Your task to perform on an android device: delete browsing data in the chrome app Image 0: 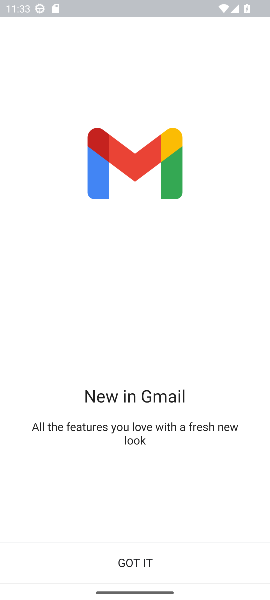
Step 0: press home button
Your task to perform on an android device: delete browsing data in the chrome app Image 1: 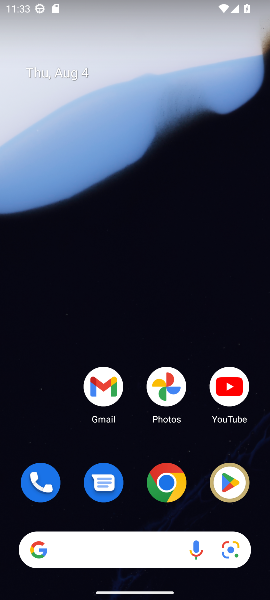
Step 1: click (170, 468)
Your task to perform on an android device: delete browsing data in the chrome app Image 2: 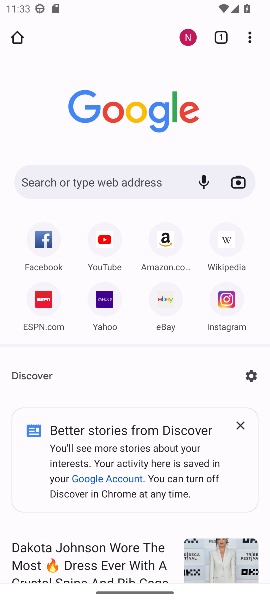
Step 2: click (252, 46)
Your task to perform on an android device: delete browsing data in the chrome app Image 3: 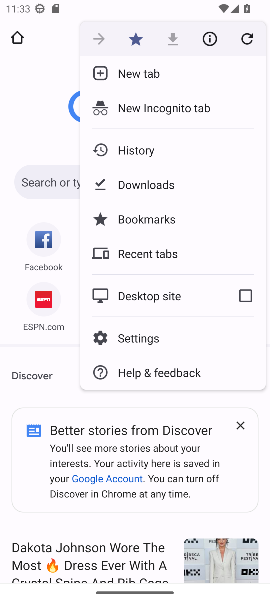
Step 3: click (137, 158)
Your task to perform on an android device: delete browsing data in the chrome app Image 4: 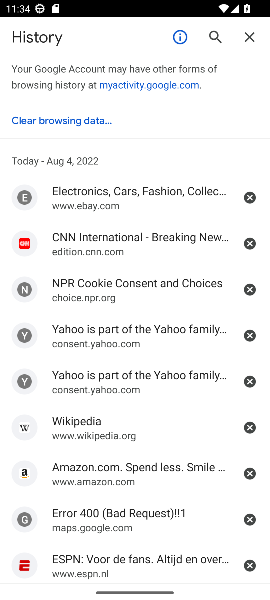
Step 4: click (76, 120)
Your task to perform on an android device: delete browsing data in the chrome app Image 5: 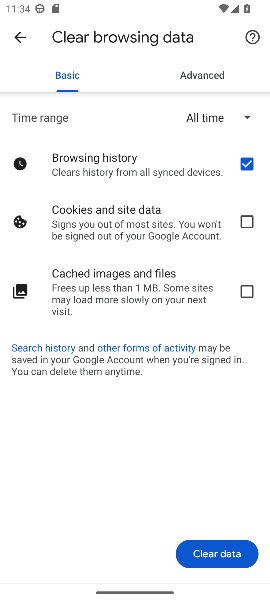
Step 5: click (247, 222)
Your task to perform on an android device: delete browsing data in the chrome app Image 6: 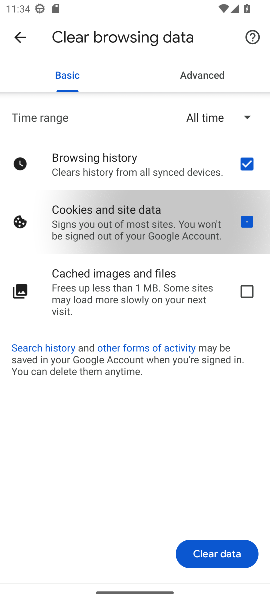
Step 6: click (251, 294)
Your task to perform on an android device: delete browsing data in the chrome app Image 7: 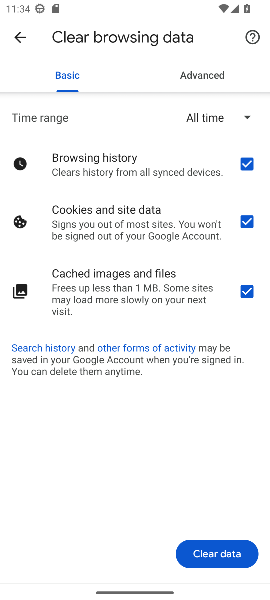
Step 7: click (233, 553)
Your task to perform on an android device: delete browsing data in the chrome app Image 8: 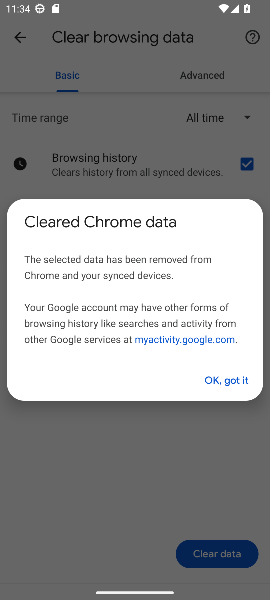
Step 8: click (215, 386)
Your task to perform on an android device: delete browsing data in the chrome app Image 9: 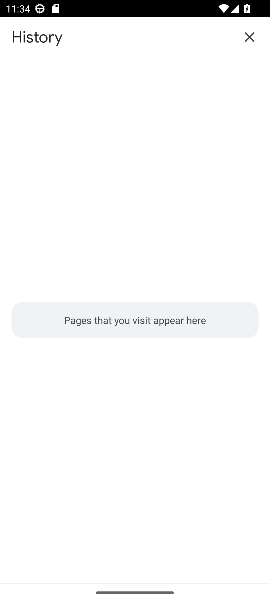
Step 9: task complete